Your task to perform on an android device: toggle wifi Image 0: 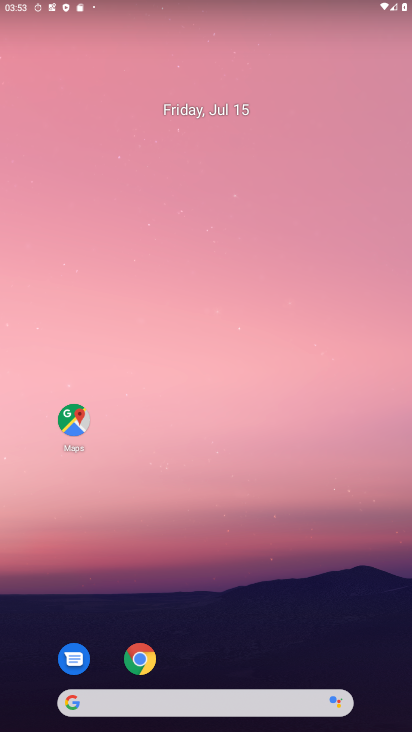
Step 0: drag from (270, 639) to (275, 4)
Your task to perform on an android device: toggle wifi Image 1: 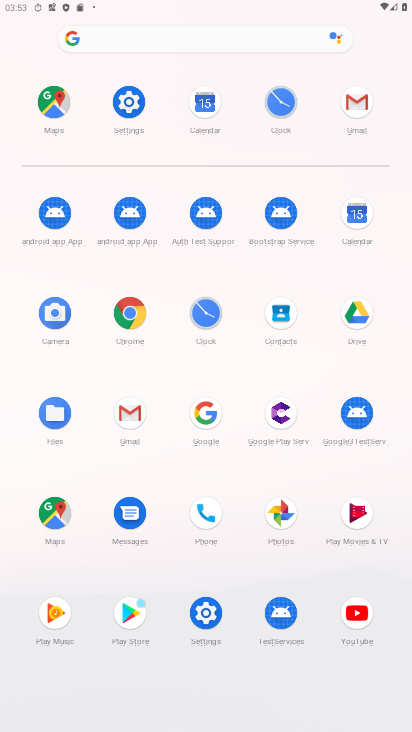
Step 1: click (131, 105)
Your task to perform on an android device: toggle wifi Image 2: 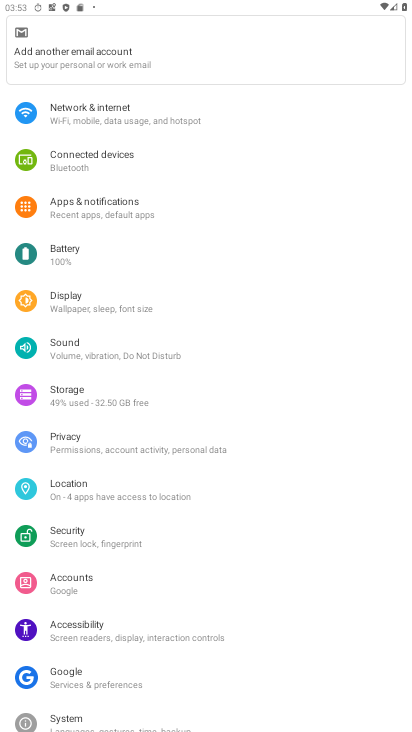
Step 2: click (139, 116)
Your task to perform on an android device: toggle wifi Image 3: 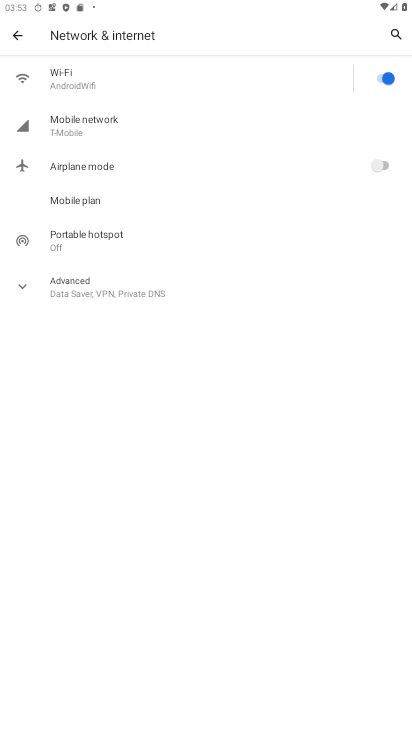
Step 3: click (377, 78)
Your task to perform on an android device: toggle wifi Image 4: 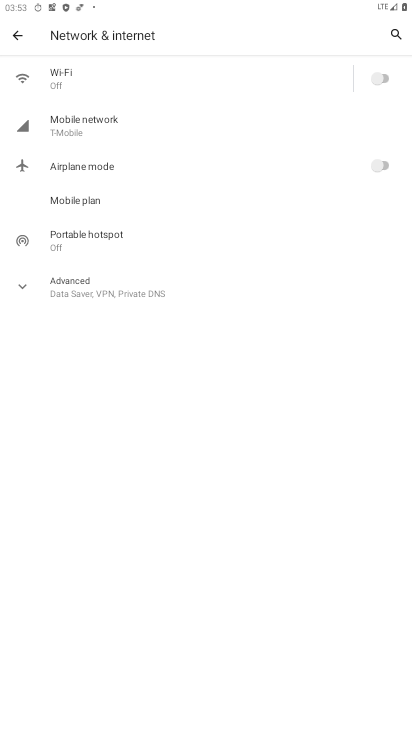
Step 4: task complete